Your task to perform on an android device: Open sound settings Image 0: 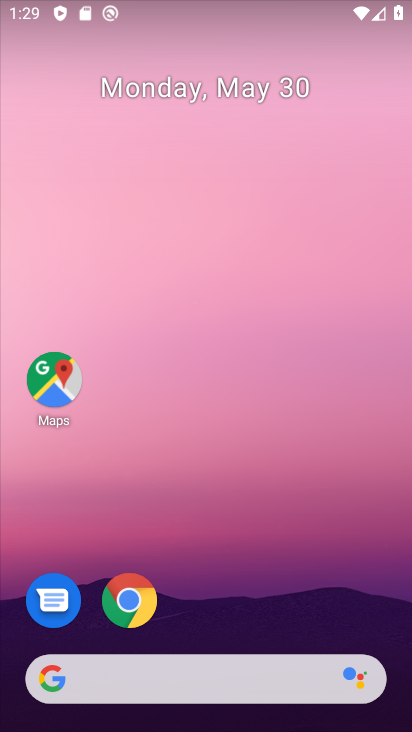
Step 0: drag from (200, 634) to (0, 39)
Your task to perform on an android device: Open sound settings Image 1: 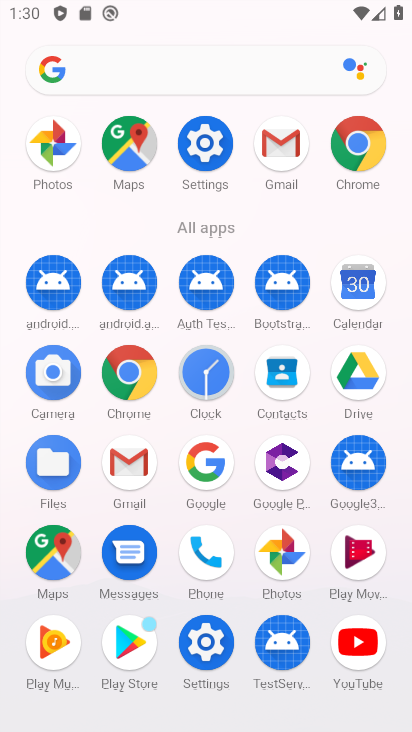
Step 1: click (205, 155)
Your task to perform on an android device: Open sound settings Image 2: 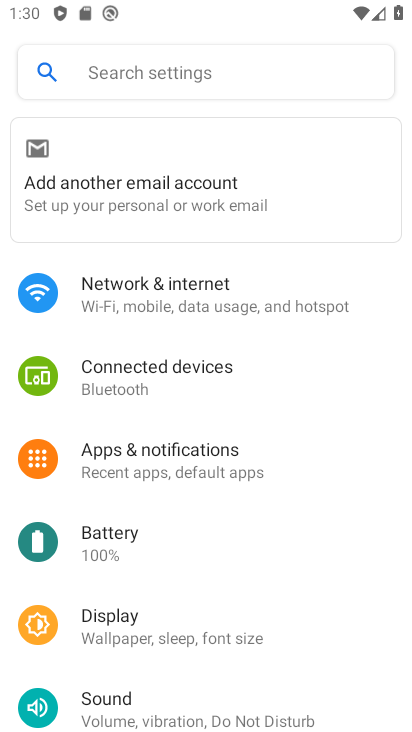
Step 2: click (166, 689)
Your task to perform on an android device: Open sound settings Image 3: 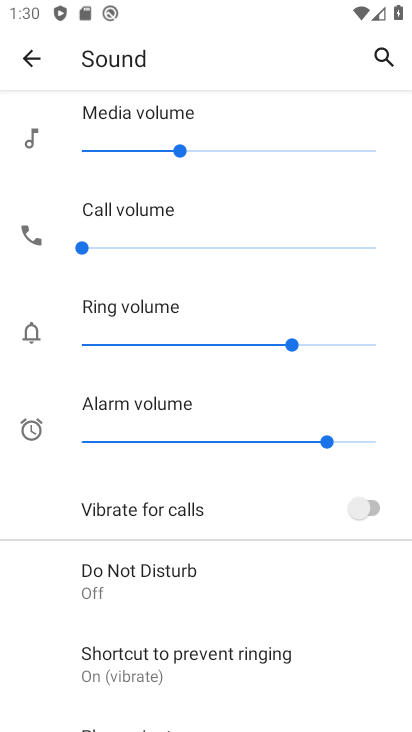
Step 3: task complete